Your task to perform on an android device: Go to Reddit.com Image 0: 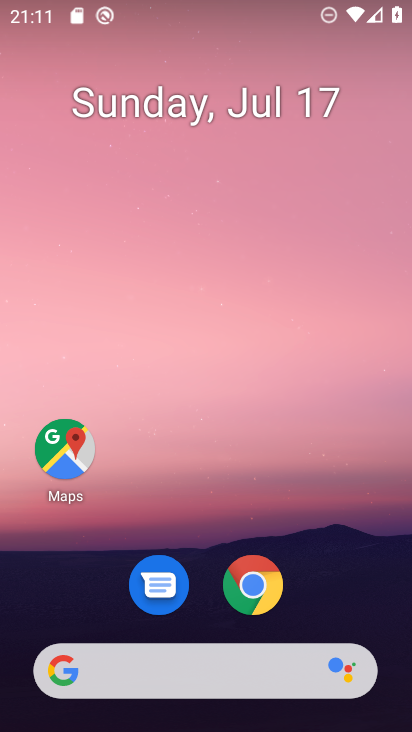
Step 0: click (262, 591)
Your task to perform on an android device: Go to Reddit.com Image 1: 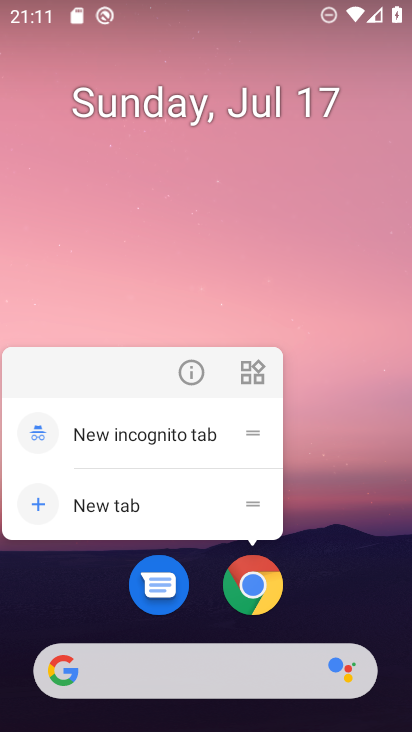
Step 1: click (253, 593)
Your task to perform on an android device: Go to Reddit.com Image 2: 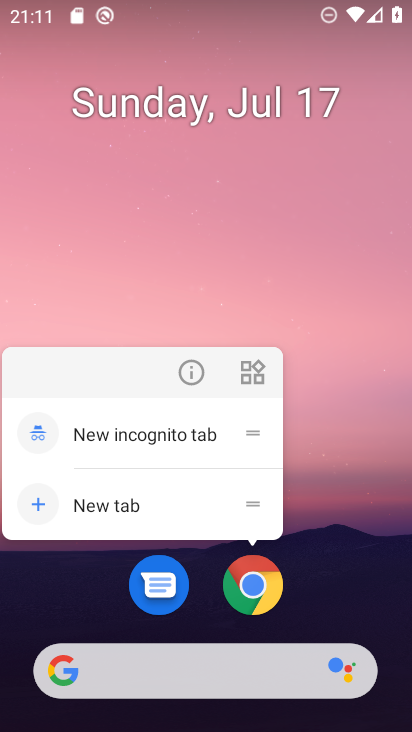
Step 2: click (246, 590)
Your task to perform on an android device: Go to Reddit.com Image 3: 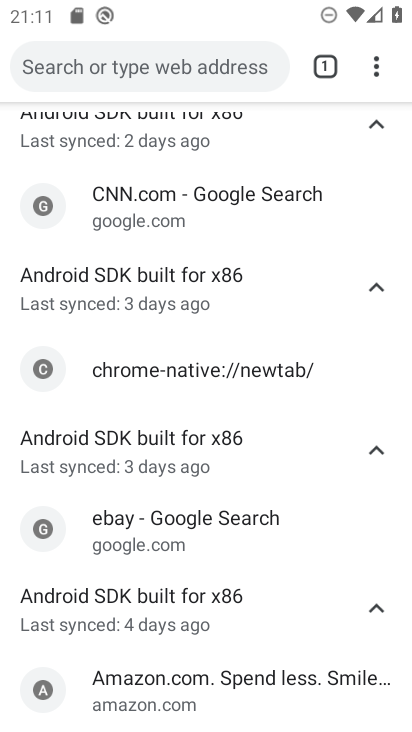
Step 3: drag from (373, 69) to (159, 140)
Your task to perform on an android device: Go to Reddit.com Image 4: 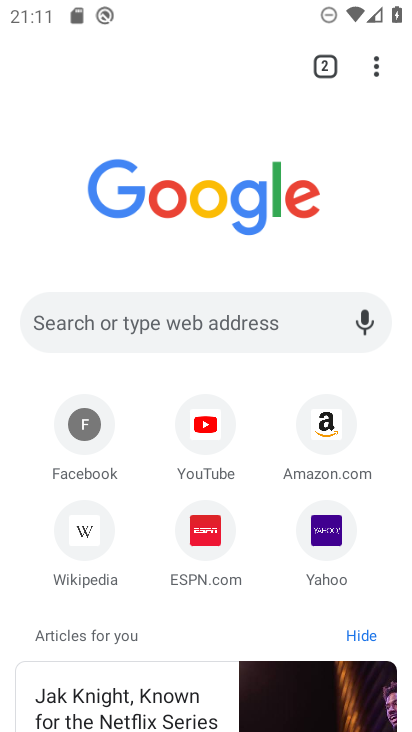
Step 4: click (149, 311)
Your task to perform on an android device: Go to Reddit.com Image 5: 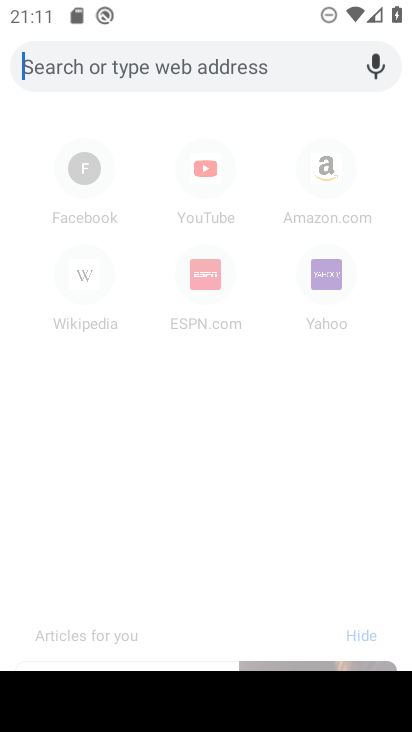
Step 5: type "reddit.com"
Your task to perform on an android device: Go to Reddit.com Image 6: 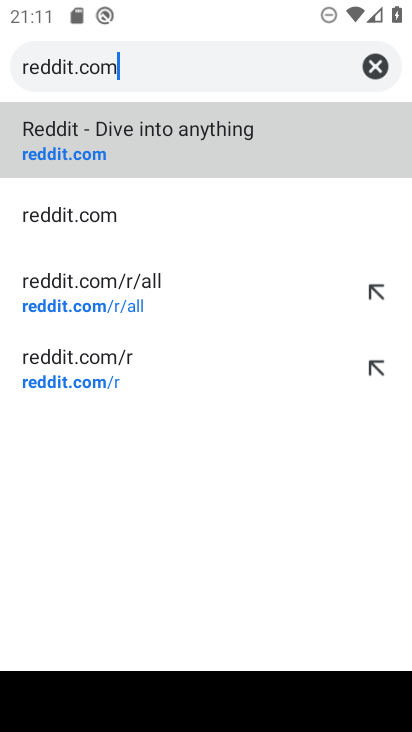
Step 6: click (165, 116)
Your task to perform on an android device: Go to Reddit.com Image 7: 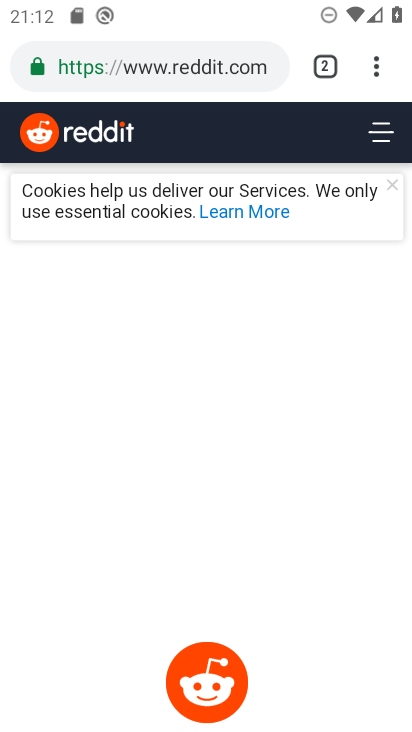
Step 7: task complete